Your task to perform on an android device: delete browsing data in the chrome app Image 0: 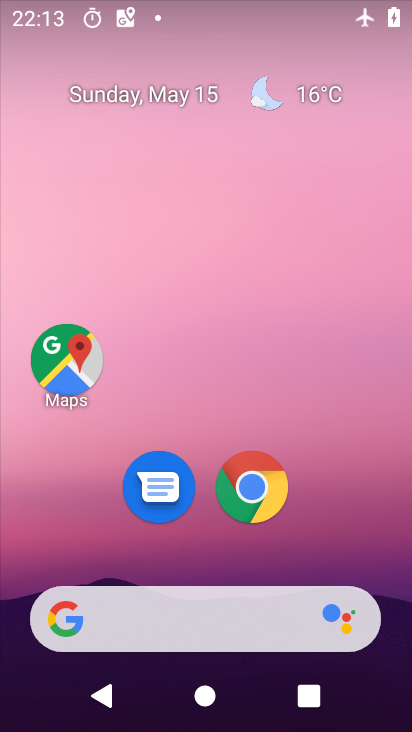
Step 0: click (249, 494)
Your task to perform on an android device: delete browsing data in the chrome app Image 1: 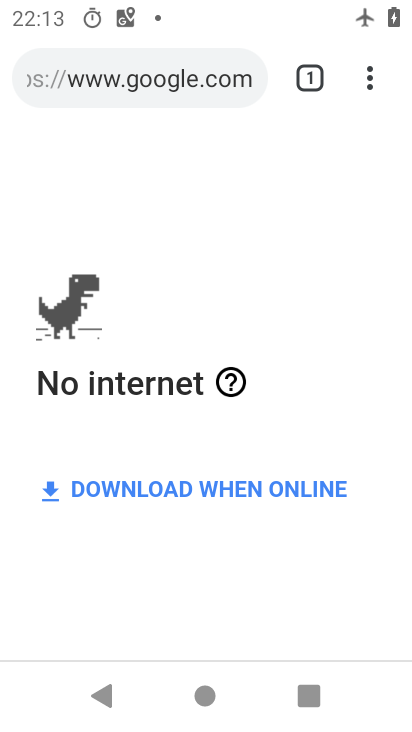
Step 1: click (362, 73)
Your task to perform on an android device: delete browsing data in the chrome app Image 2: 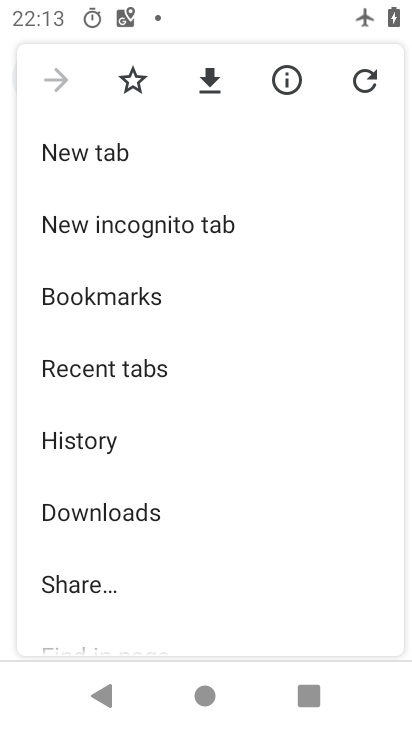
Step 2: click (73, 447)
Your task to perform on an android device: delete browsing data in the chrome app Image 3: 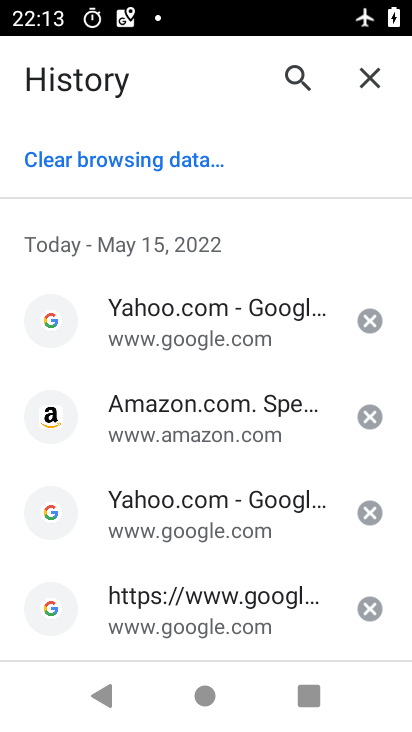
Step 3: click (163, 159)
Your task to perform on an android device: delete browsing data in the chrome app Image 4: 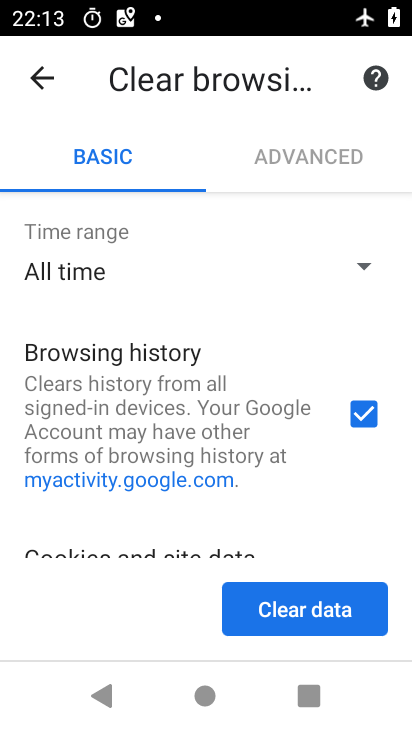
Step 4: click (286, 601)
Your task to perform on an android device: delete browsing data in the chrome app Image 5: 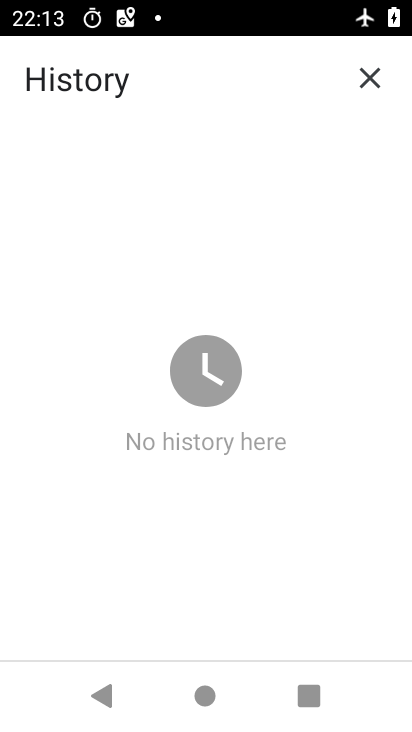
Step 5: task complete